Your task to perform on an android device: Open Android settings Image 0: 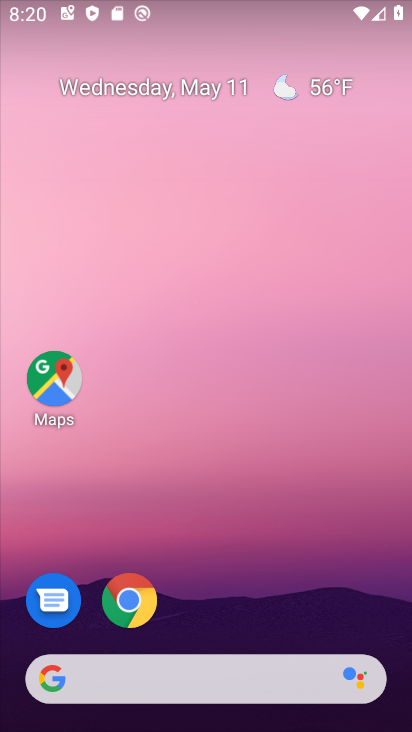
Step 0: drag from (234, 581) to (254, 51)
Your task to perform on an android device: Open Android settings Image 1: 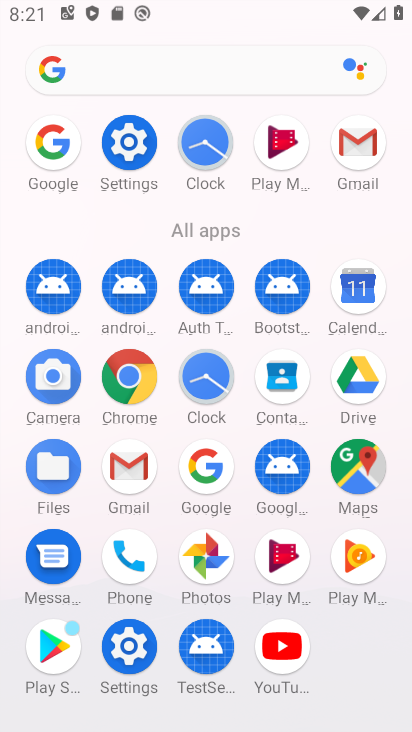
Step 1: click (127, 140)
Your task to perform on an android device: Open Android settings Image 2: 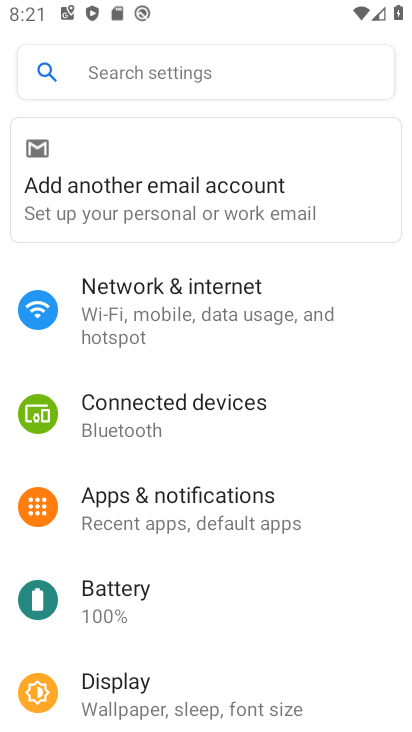
Step 2: task complete